Your task to perform on an android device: What's the weather? Image 0: 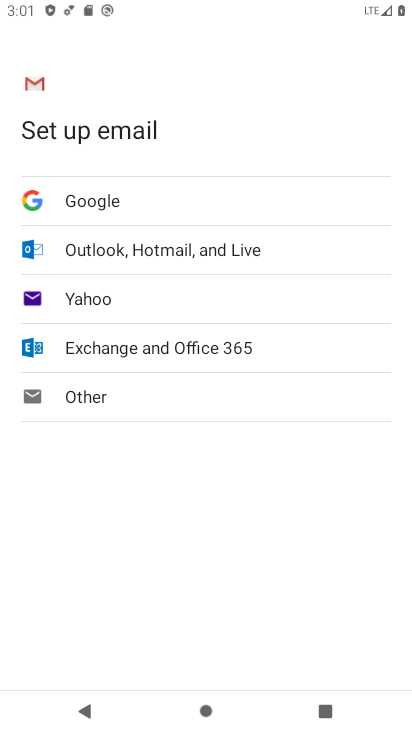
Step 0: press home button
Your task to perform on an android device: What's the weather? Image 1: 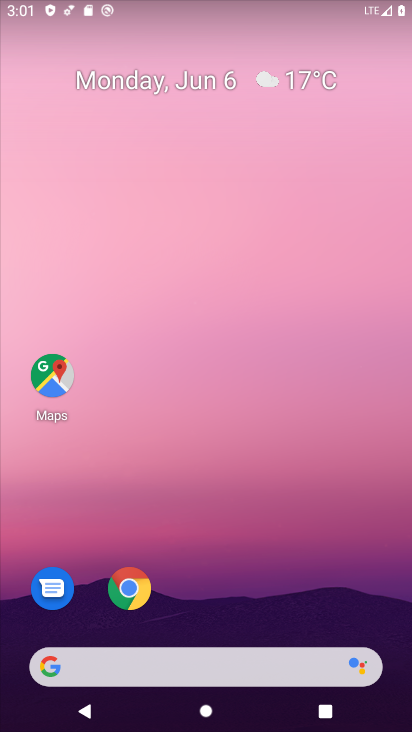
Step 1: click (289, 84)
Your task to perform on an android device: What's the weather? Image 2: 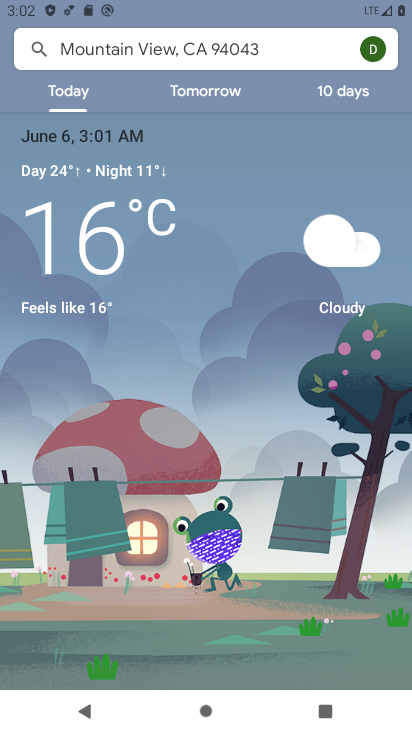
Step 2: task complete